Your task to perform on an android device: turn on data saver in the chrome app Image 0: 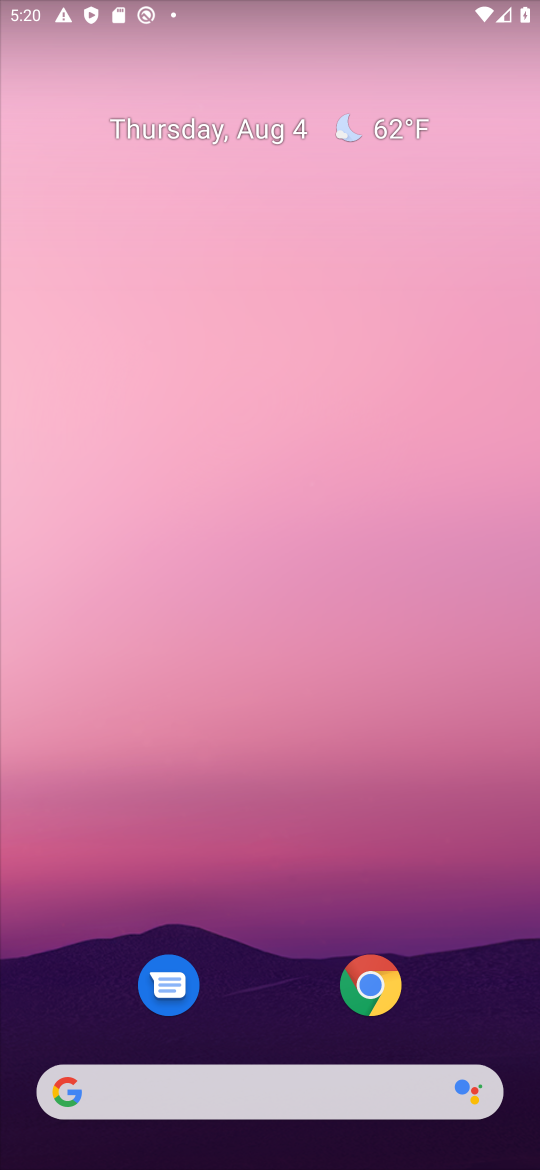
Step 0: click (362, 990)
Your task to perform on an android device: turn on data saver in the chrome app Image 1: 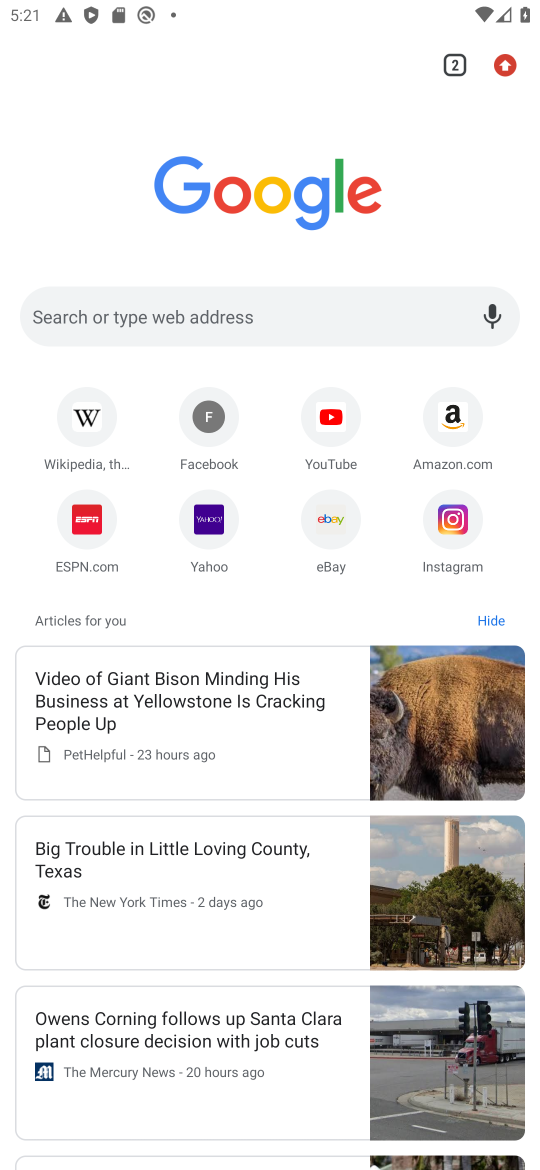
Step 1: drag from (513, 62) to (301, 611)
Your task to perform on an android device: turn on data saver in the chrome app Image 2: 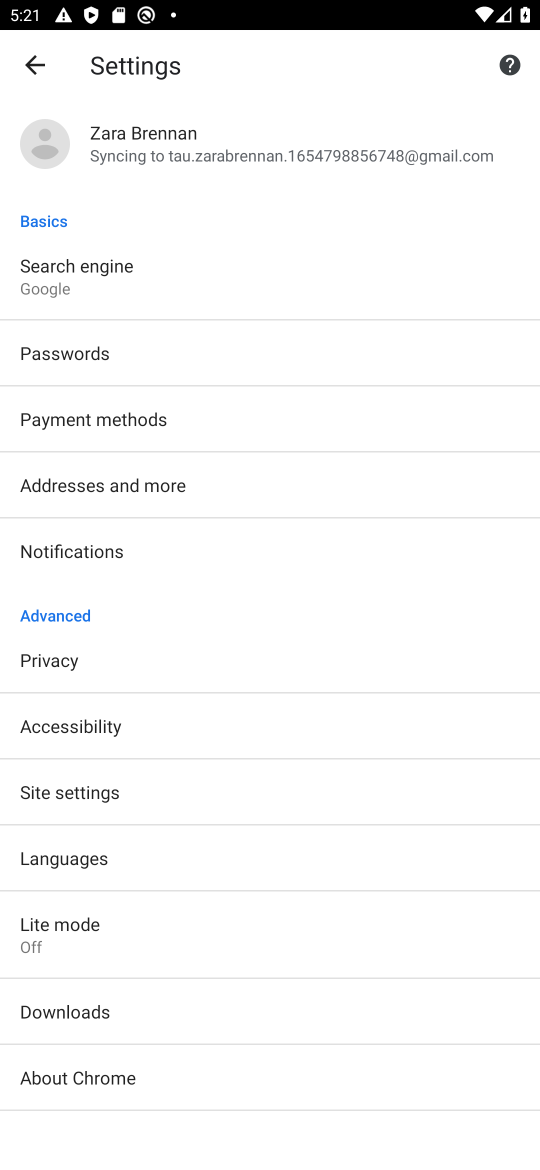
Step 2: click (108, 915)
Your task to perform on an android device: turn on data saver in the chrome app Image 3: 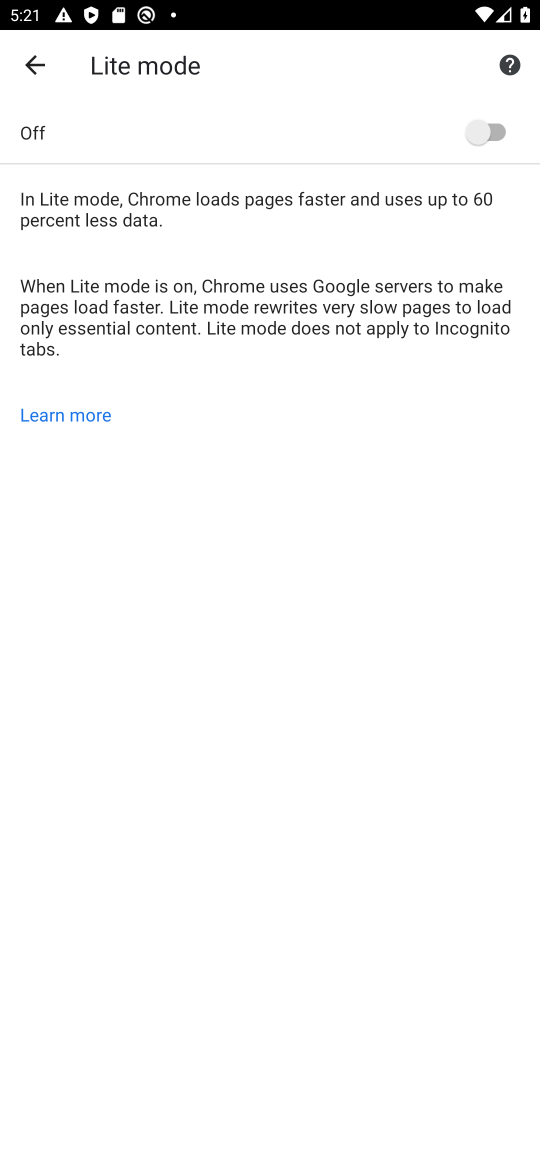
Step 3: click (493, 133)
Your task to perform on an android device: turn on data saver in the chrome app Image 4: 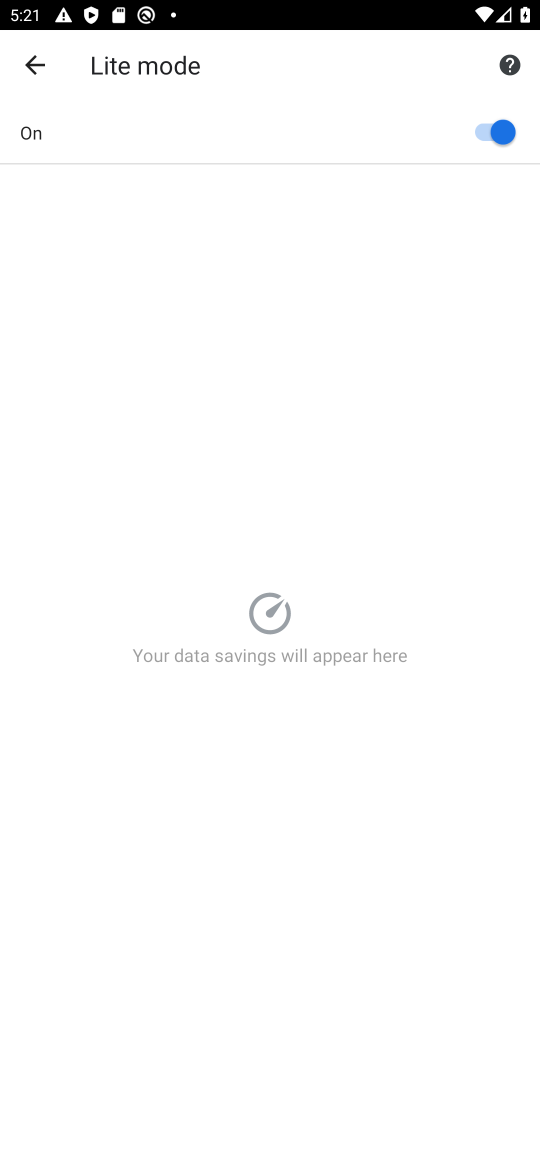
Step 4: task complete